Your task to perform on an android device: Open network settings Image 0: 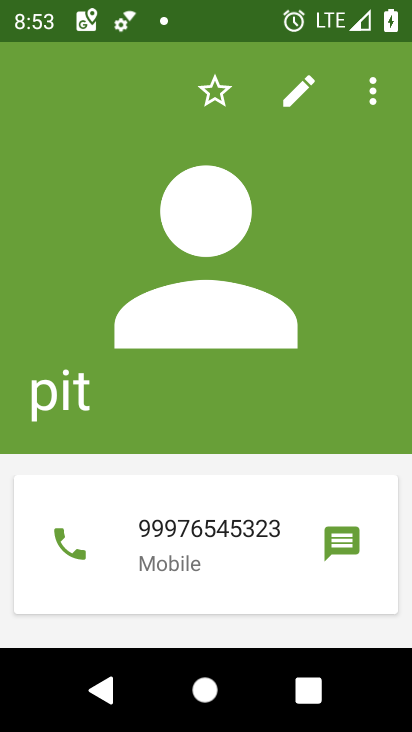
Step 0: press home button
Your task to perform on an android device: Open network settings Image 1: 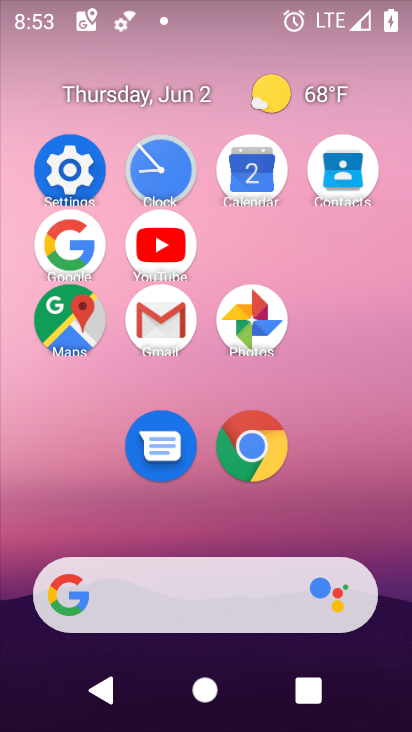
Step 1: click (66, 153)
Your task to perform on an android device: Open network settings Image 2: 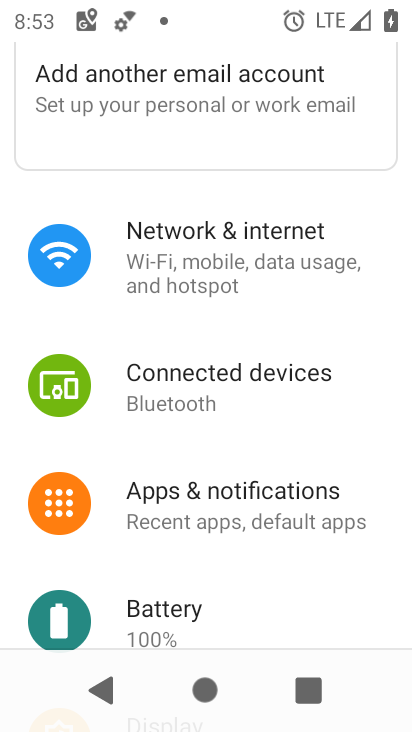
Step 2: click (203, 267)
Your task to perform on an android device: Open network settings Image 3: 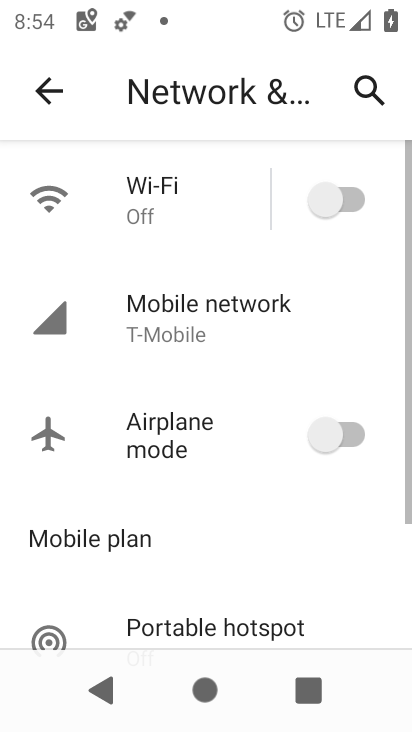
Step 3: task complete